Your task to perform on an android device: Show me productivity apps on the Play Store Image 0: 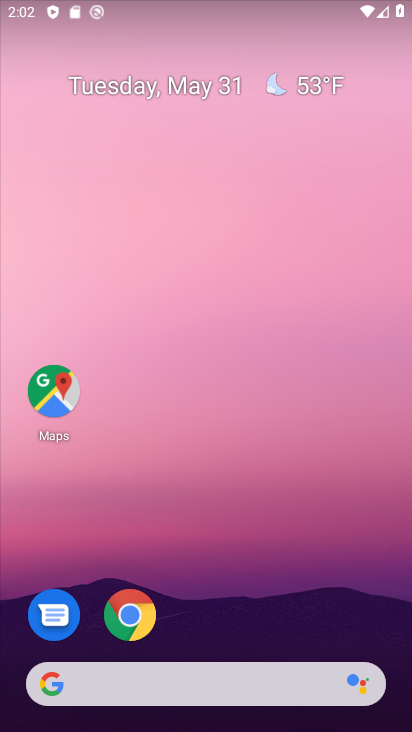
Step 0: drag from (193, 598) to (274, 57)
Your task to perform on an android device: Show me productivity apps on the Play Store Image 1: 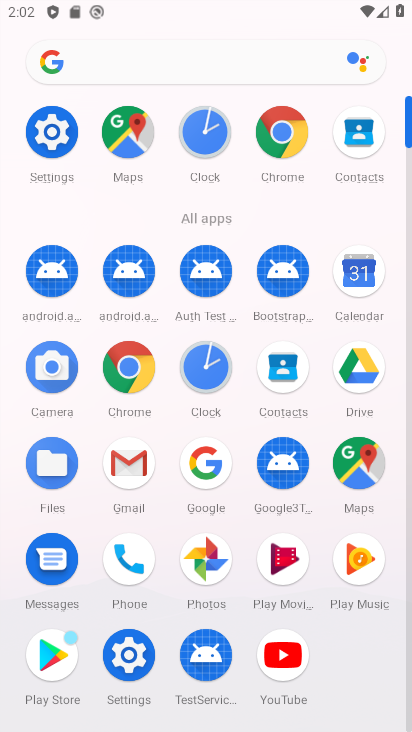
Step 1: click (64, 652)
Your task to perform on an android device: Show me productivity apps on the Play Store Image 2: 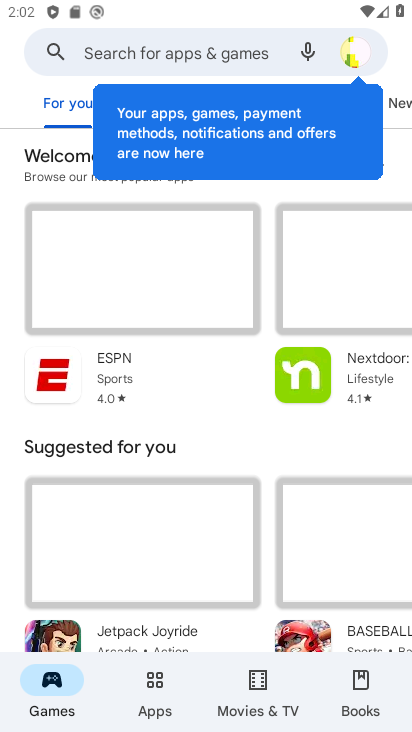
Step 2: click (152, 683)
Your task to perform on an android device: Show me productivity apps on the Play Store Image 3: 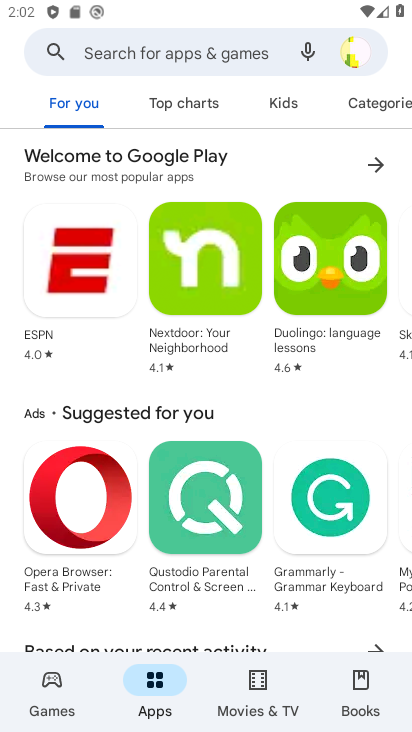
Step 3: drag from (110, 500) to (176, 108)
Your task to perform on an android device: Show me productivity apps on the Play Store Image 4: 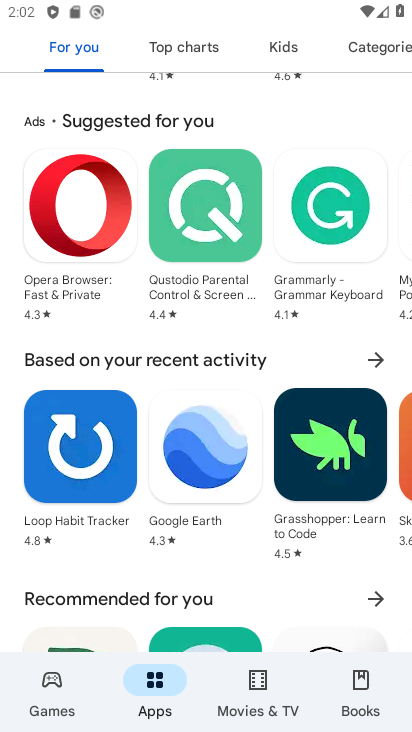
Step 4: drag from (139, 551) to (210, 80)
Your task to perform on an android device: Show me productivity apps on the Play Store Image 5: 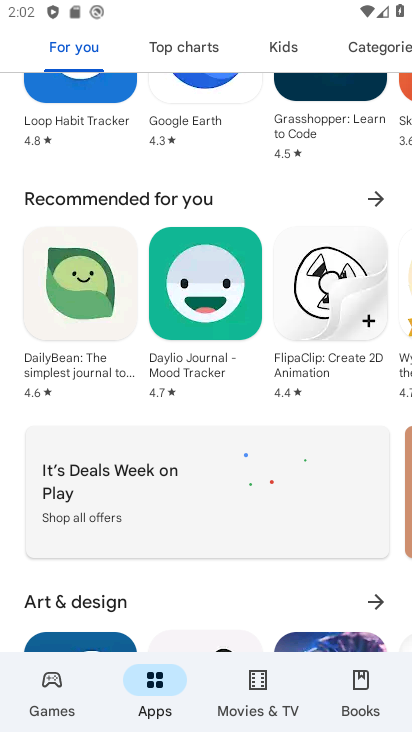
Step 5: drag from (146, 589) to (210, 62)
Your task to perform on an android device: Show me productivity apps on the Play Store Image 6: 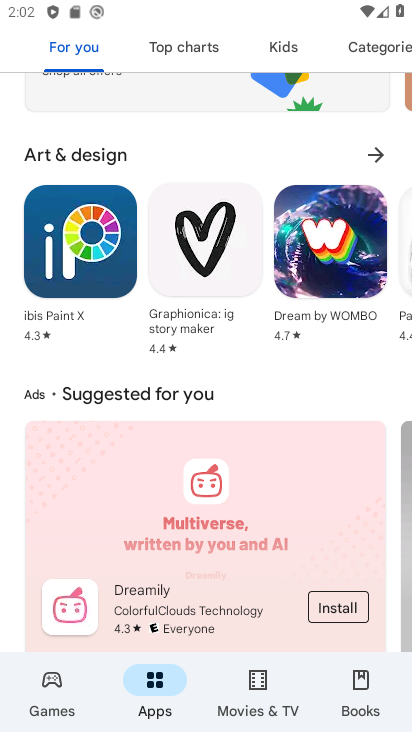
Step 6: drag from (145, 629) to (227, 88)
Your task to perform on an android device: Show me productivity apps on the Play Store Image 7: 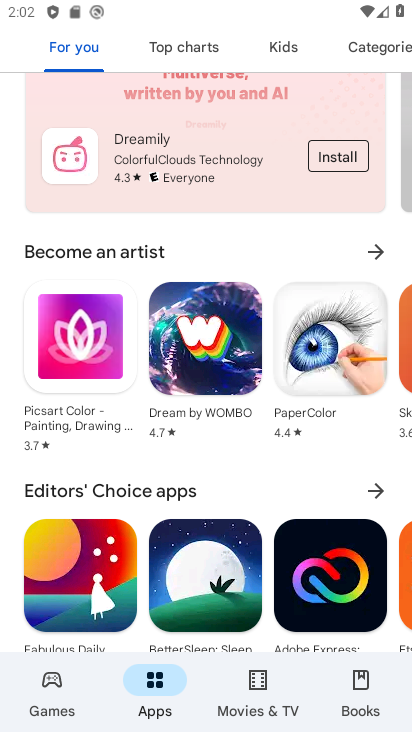
Step 7: drag from (138, 597) to (221, 99)
Your task to perform on an android device: Show me productivity apps on the Play Store Image 8: 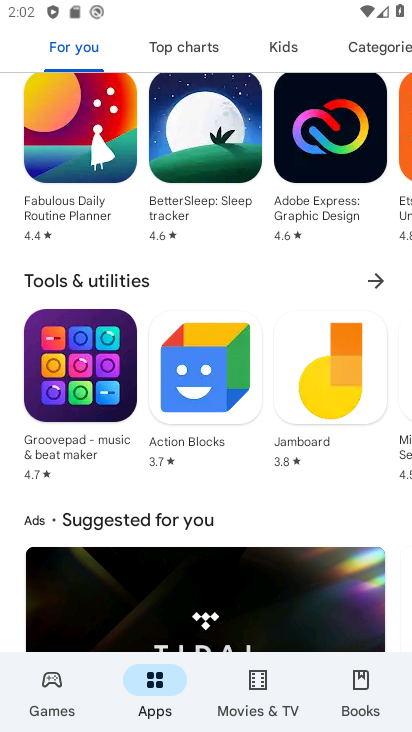
Step 8: drag from (187, 567) to (270, 58)
Your task to perform on an android device: Show me productivity apps on the Play Store Image 9: 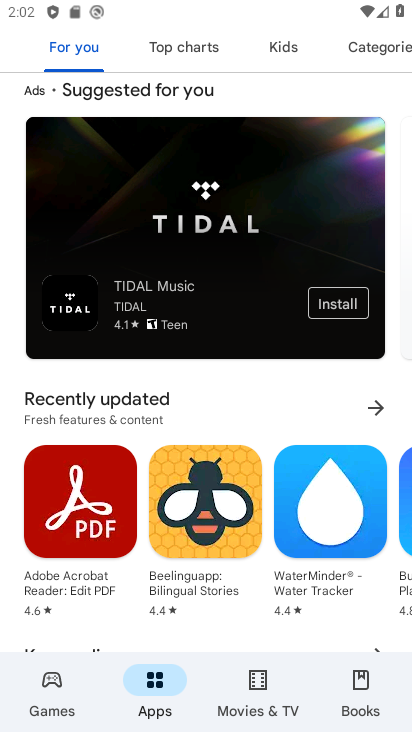
Step 9: drag from (219, 456) to (296, 78)
Your task to perform on an android device: Show me productivity apps on the Play Store Image 10: 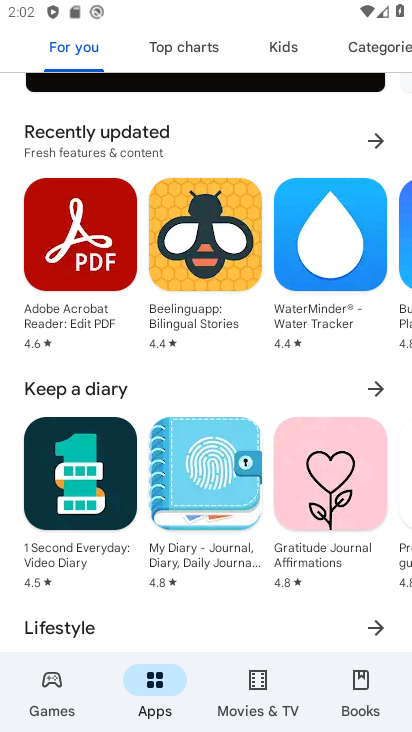
Step 10: drag from (222, 575) to (299, 47)
Your task to perform on an android device: Show me productivity apps on the Play Store Image 11: 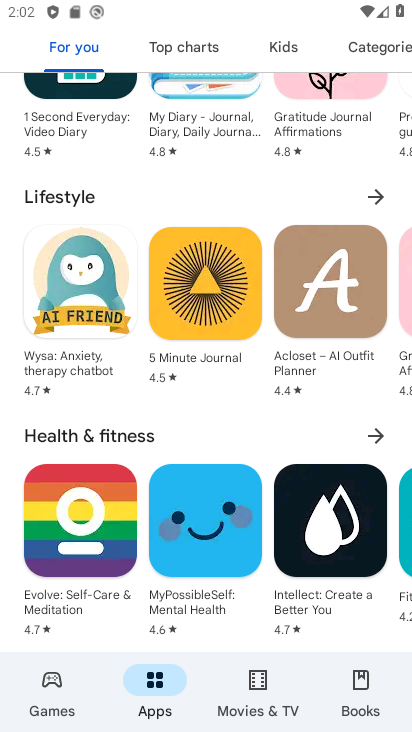
Step 11: drag from (205, 542) to (300, 45)
Your task to perform on an android device: Show me productivity apps on the Play Store Image 12: 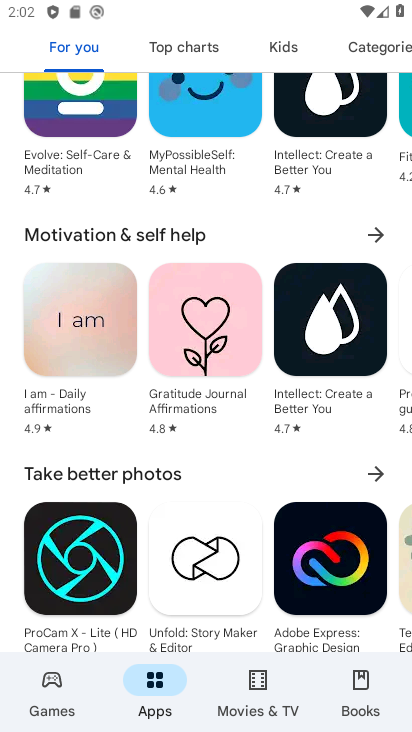
Step 12: drag from (221, 572) to (315, 23)
Your task to perform on an android device: Show me productivity apps on the Play Store Image 13: 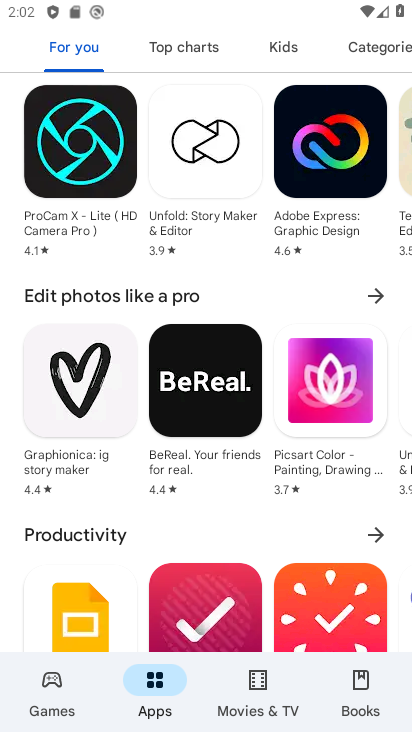
Step 13: drag from (221, 548) to (287, 244)
Your task to perform on an android device: Show me productivity apps on the Play Store Image 14: 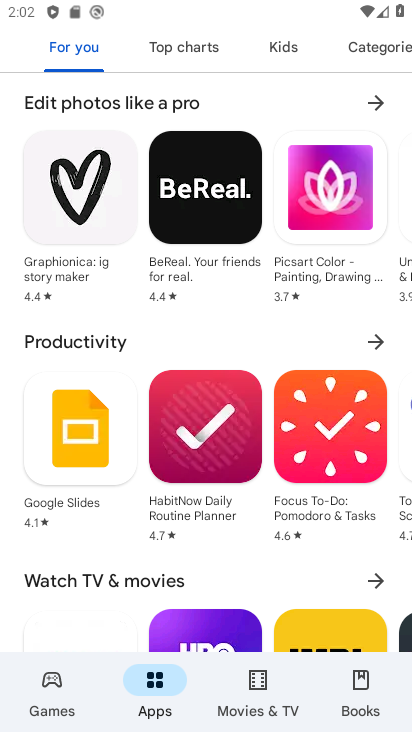
Step 14: click (366, 337)
Your task to perform on an android device: Show me productivity apps on the Play Store Image 15: 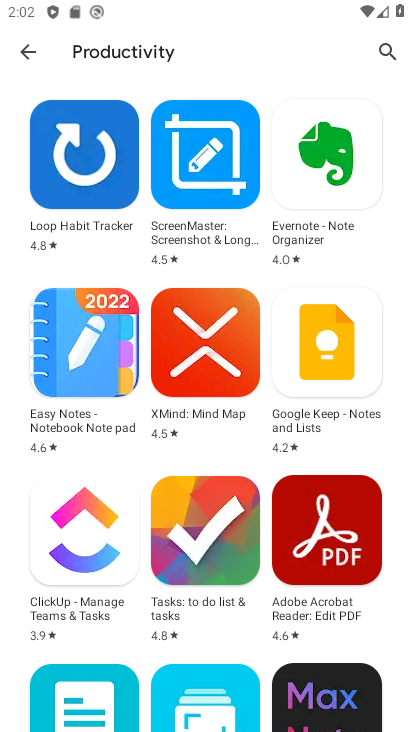
Step 15: task complete